Your task to perform on an android device: turn off translation in the chrome app Image 0: 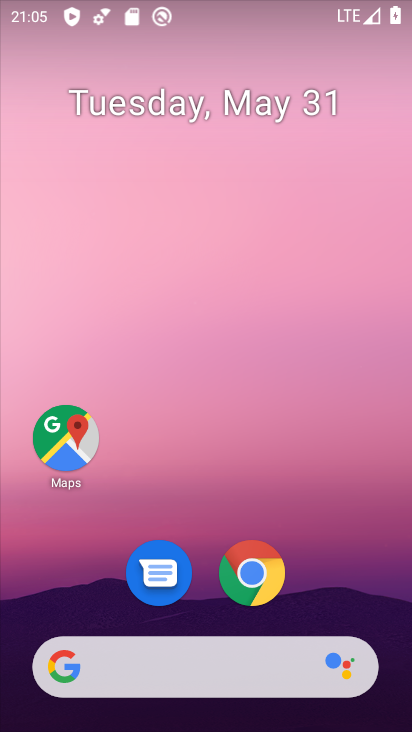
Step 0: click (256, 572)
Your task to perform on an android device: turn off translation in the chrome app Image 1: 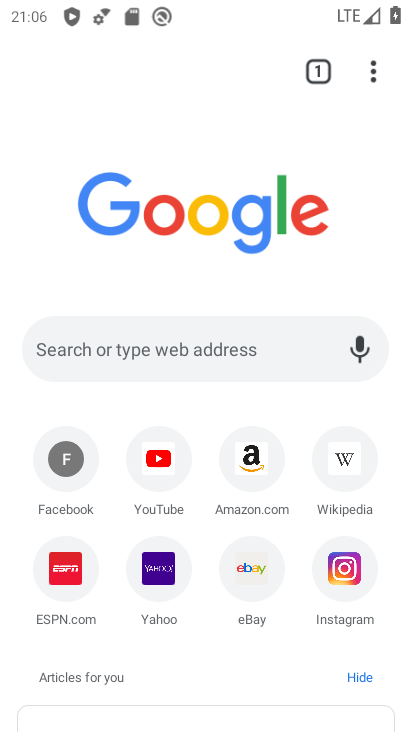
Step 1: drag from (380, 60) to (139, 598)
Your task to perform on an android device: turn off translation in the chrome app Image 2: 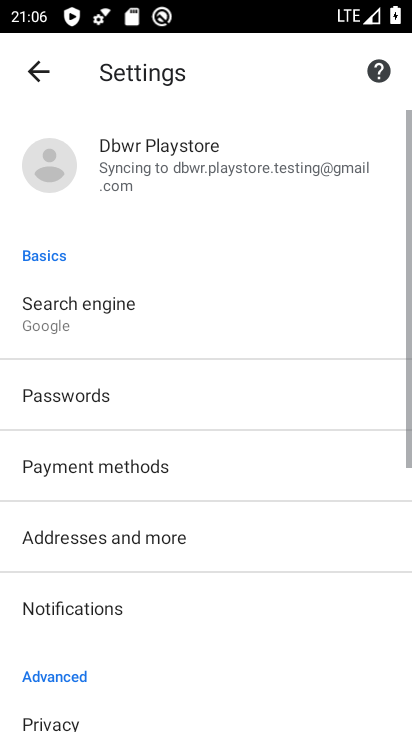
Step 2: drag from (209, 650) to (309, 69)
Your task to perform on an android device: turn off translation in the chrome app Image 3: 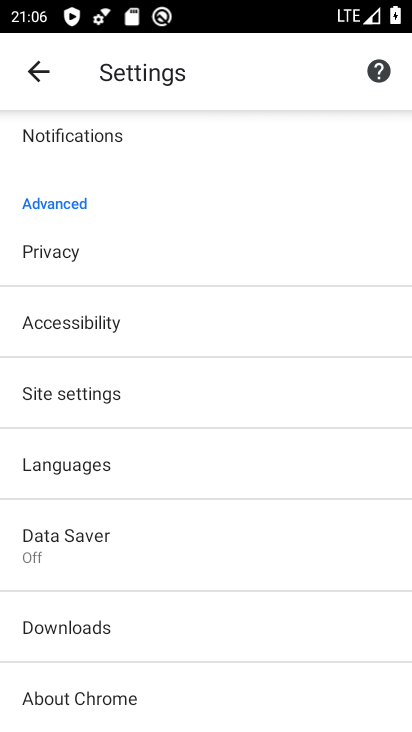
Step 3: drag from (219, 373) to (243, 126)
Your task to perform on an android device: turn off translation in the chrome app Image 4: 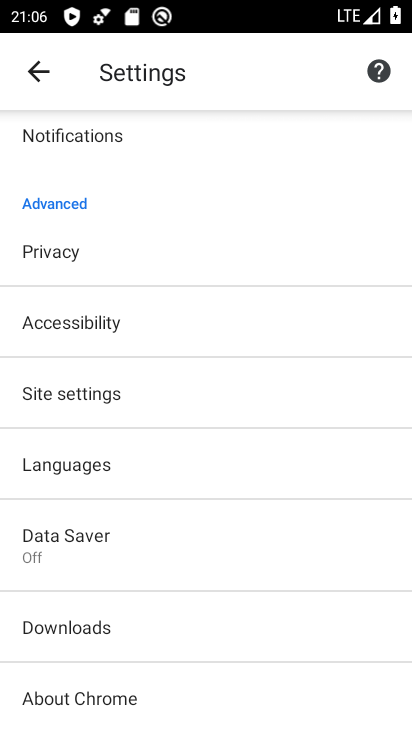
Step 4: click (71, 457)
Your task to perform on an android device: turn off translation in the chrome app Image 5: 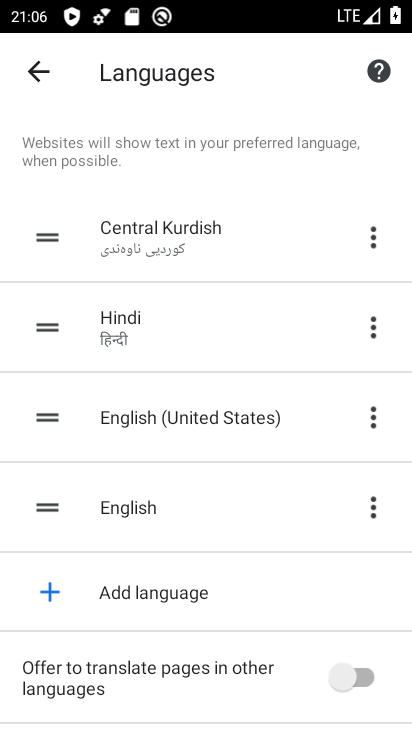
Step 5: task complete